Your task to perform on an android device: check battery use Image 0: 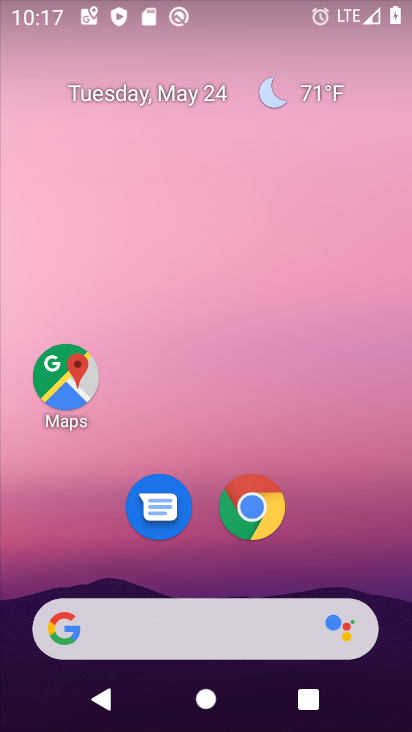
Step 0: drag from (245, 692) to (258, 246)
Your task to perform on an android device: check battery use Image 1: 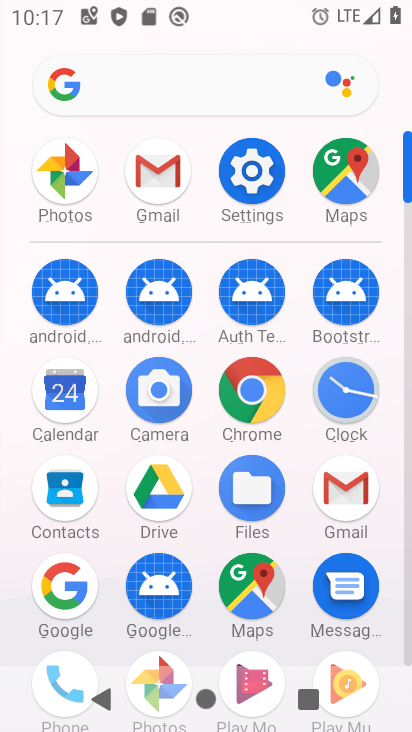
Step 1: click (251, 168)
Your task to perform on an android device: check battery use Image 2: 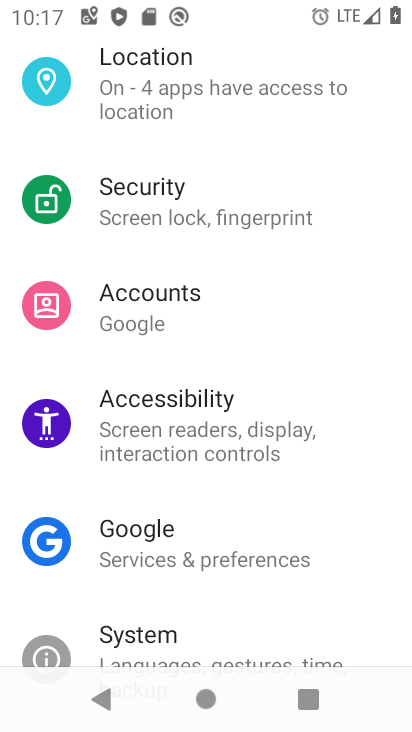
Step 2: drag from (198, 206) to (214, 519)
Your task to perform on an android device: check battery use Image 3: 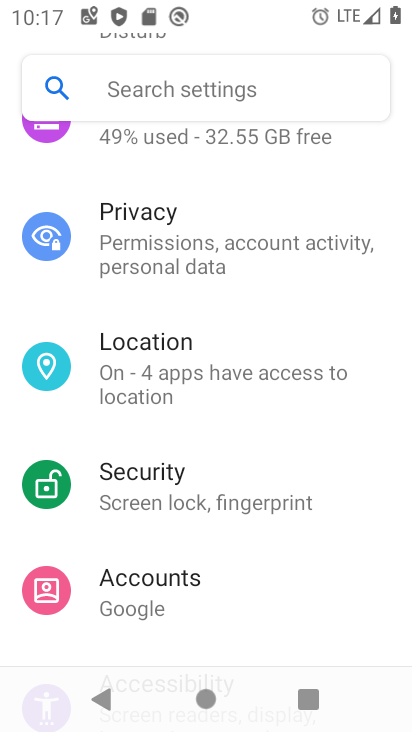
Step 3: drag from (191, 217) to (196, 536)
Your task to perform on an android device: check battery use Image 4: 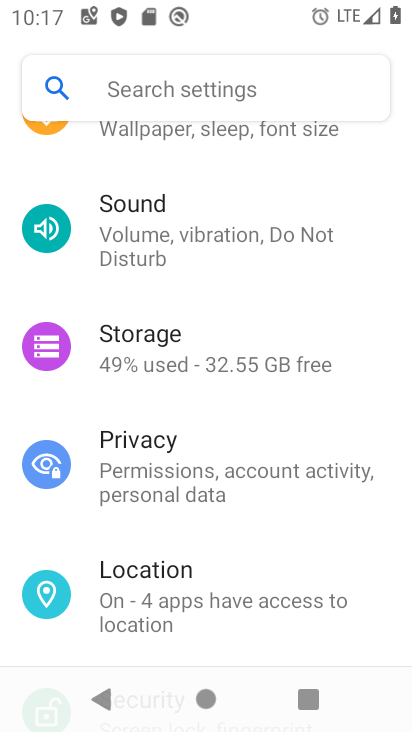
Step 4: drag from (175, 185) to (206, 522)
Your task to perform on an android device: check battery use Image 5: 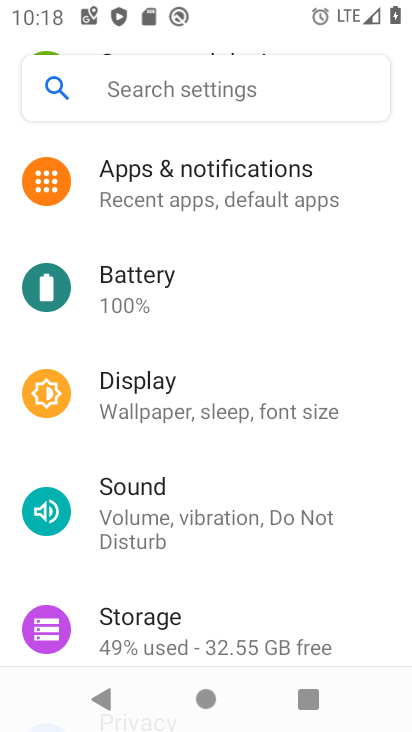
Step 5: click (129, 281)
Your task to perform on an android device: check battery use Image 6: 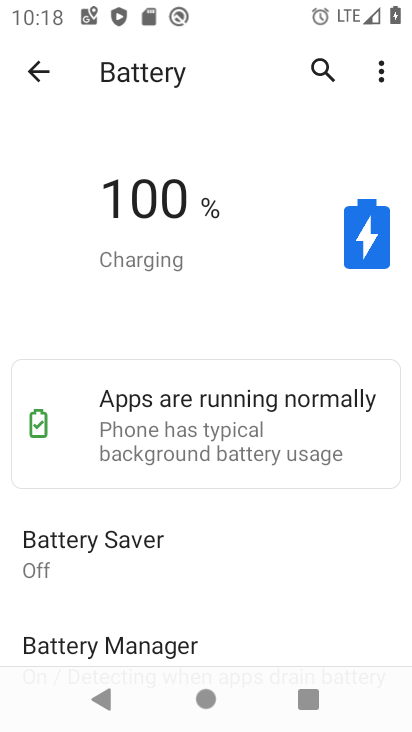
Step 6: click (380, 73)
Your task to perform on an android device: check battery use Image 7: 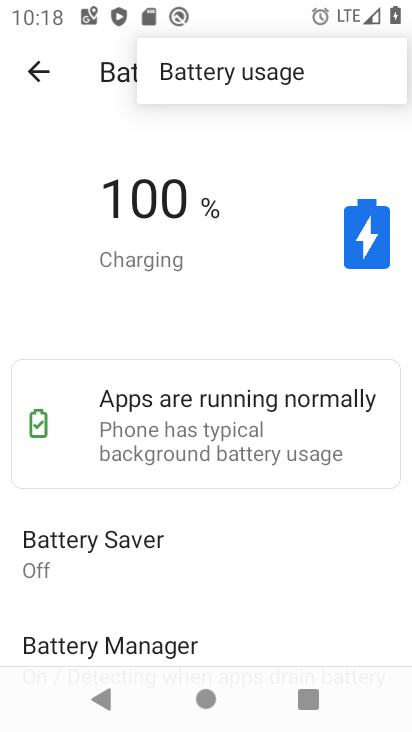
Step 7: click (256, 66)
Your task to perform on an android device: check battery use Image 8: 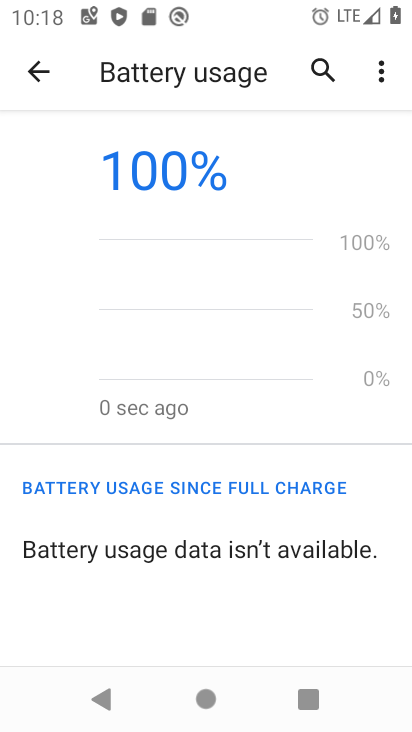
Step 8: task complete